Your task to perform on an android device: Open Chrome and go to settings Image 0: 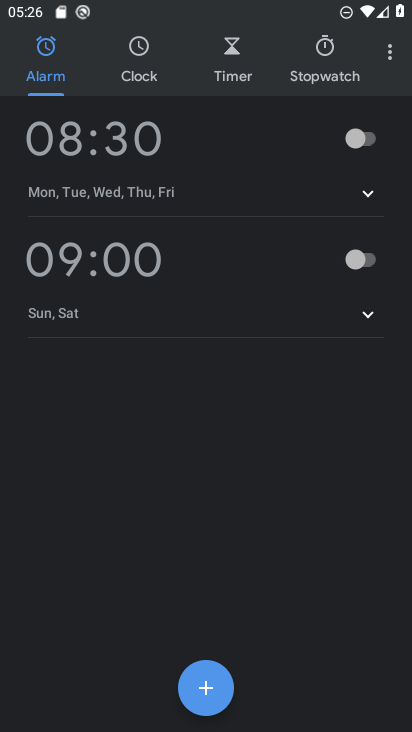
Step 0: press home button
Your task to perform on an android device: Open Chrome and go to settings Image 1: 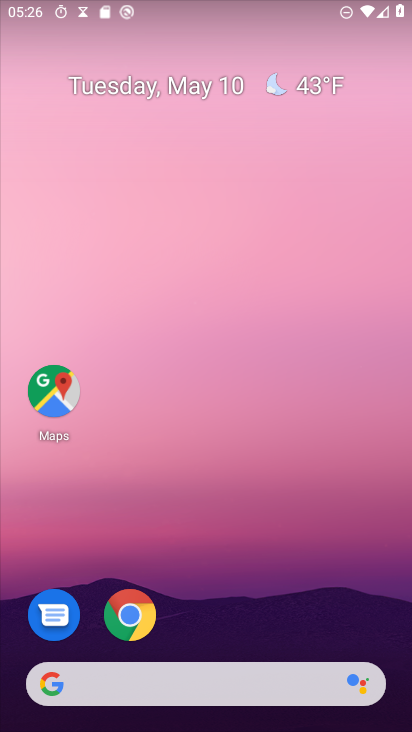
Step 1: drag from (270, 648) to (314, 197)
Your task to perform on an android device: Open Chrome and go to settings Image 2: 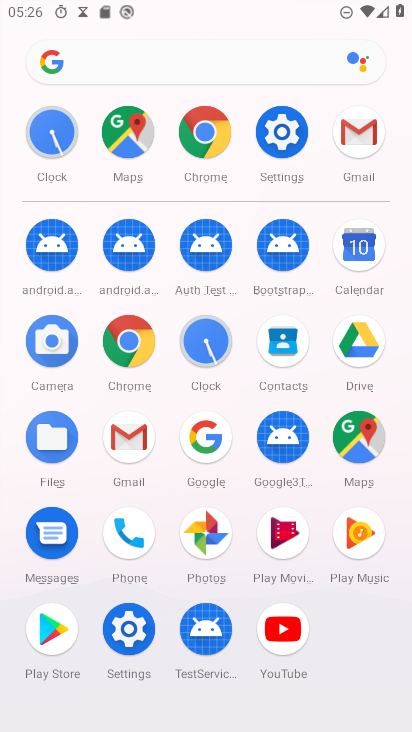
Step 2: click (132, 355)
Your task to perform on an android device: Open Chrome and go to settings Image 3: 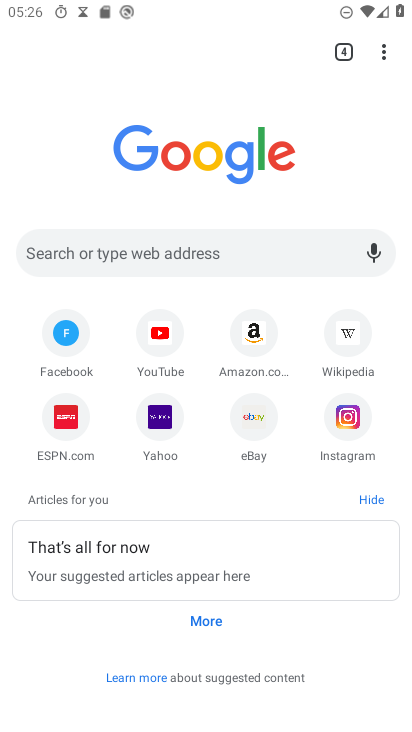
Step 3: task complete